Your task to perform on an android device: Open Youtube and go to the subscriptions tab Image 0: 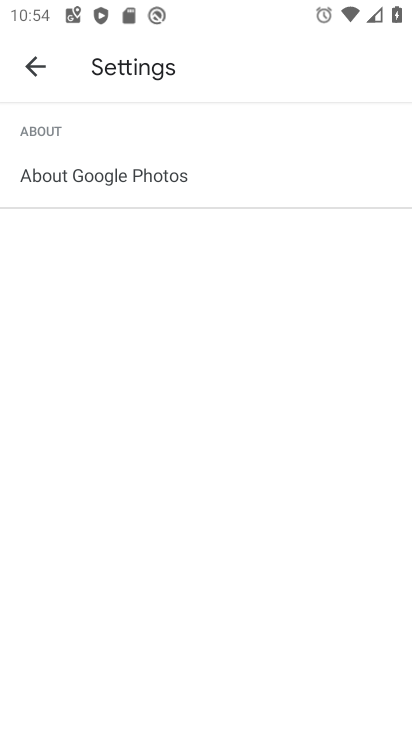
Step 0: press home button
Your task to perform on an android device: Open Youtube and go to the subscriptions tab Image 1: 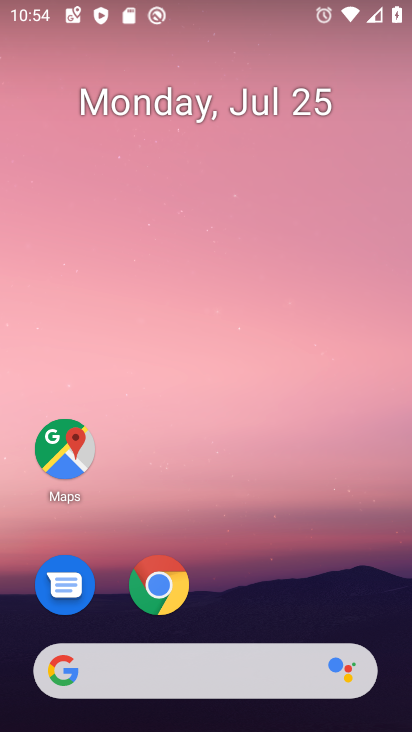
Step 1: drag from (206, 614) to (212, 51)
Your task to perform on an android device: Open Youtube and go to the subscriptions tab Image 2: 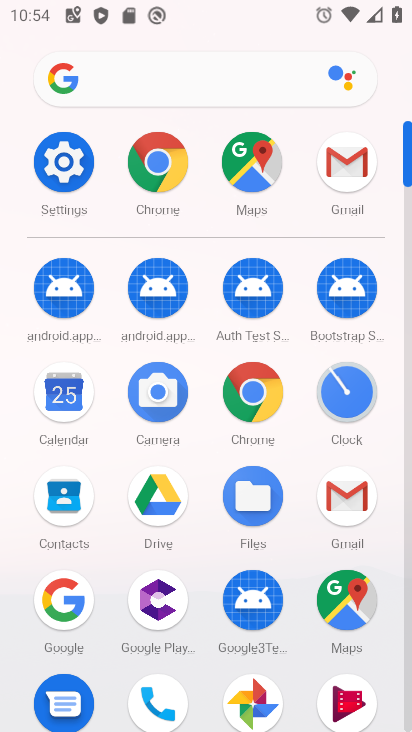
Step 2: drag from (210, 660) to (210, 121)
Your task to perform on an android device: Open Youtube and go to the subscriptions tab Image 3: 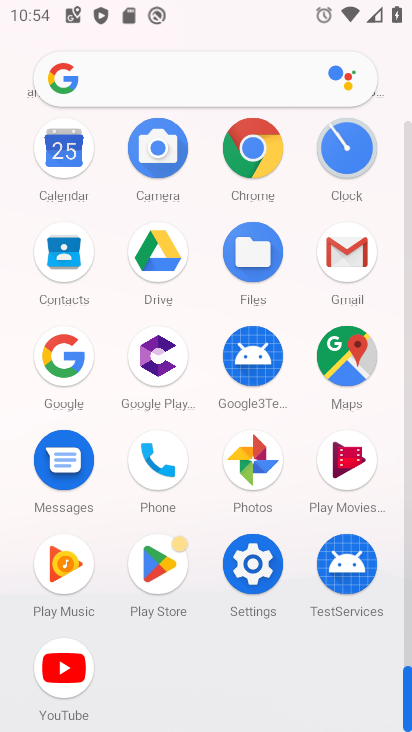
Step 3: click (68, 681)
Your task to perform on an android device: Open Youtube and go to the subscriptions tab Image 4: 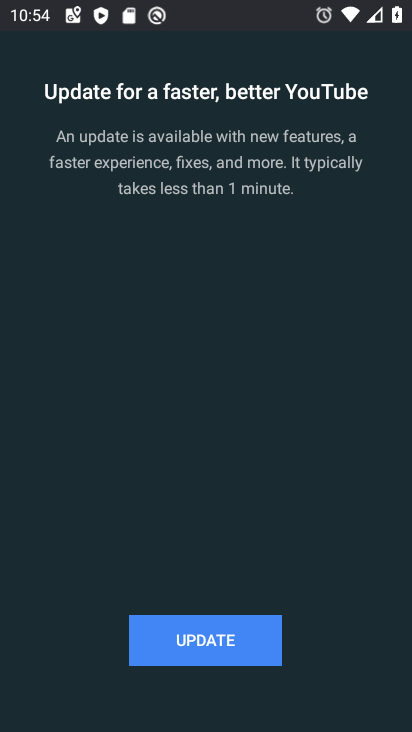
Step 4: click (231, 644)
Your task to perform on an android device: Open Youtube and go to the subscriptions tab Image 5: 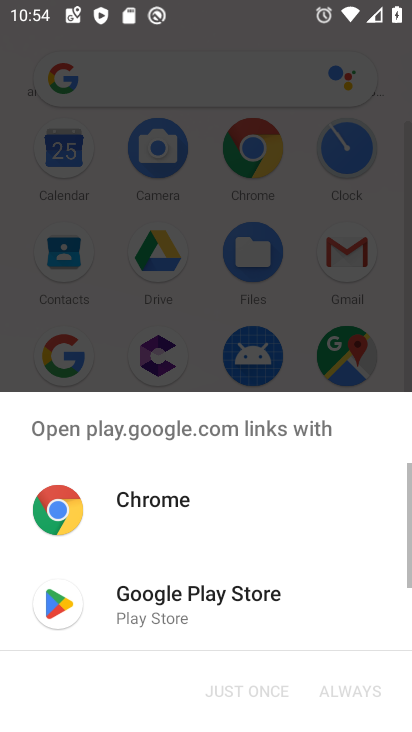
Step 5: click (179, 598)
Your task to perform on an android device: Open Youtube and go to the subscriptions tab Image 6: 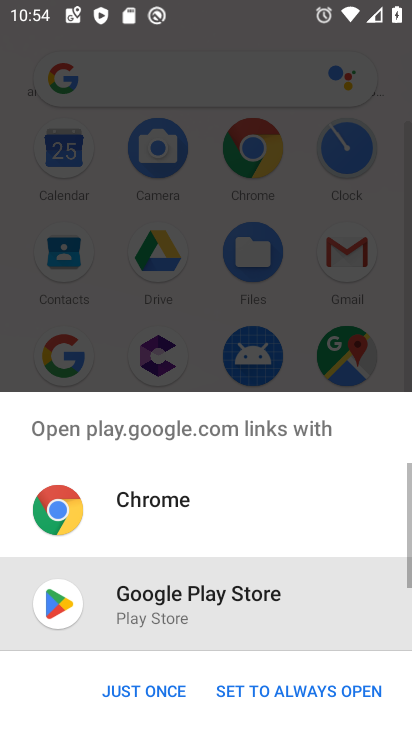
Step 6: click (166, 692)
Your task to perform on an android device: Open Youtube and go to the subscriptions tab Image 7: 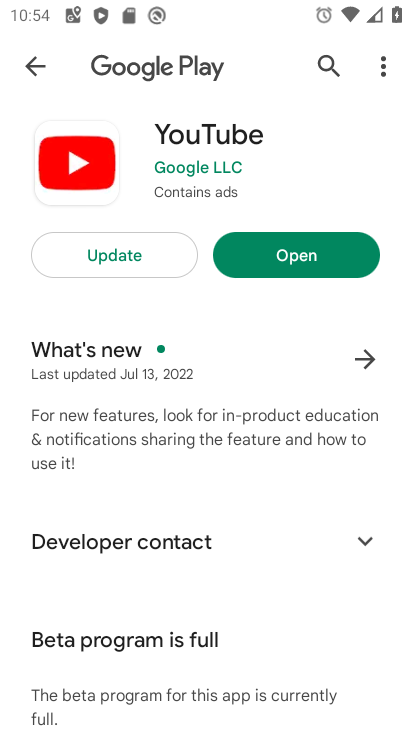
Step 7: click (143, 248)
Your task to perform on an android device: Open Youtube and go to the subscriptions tab Image 8: 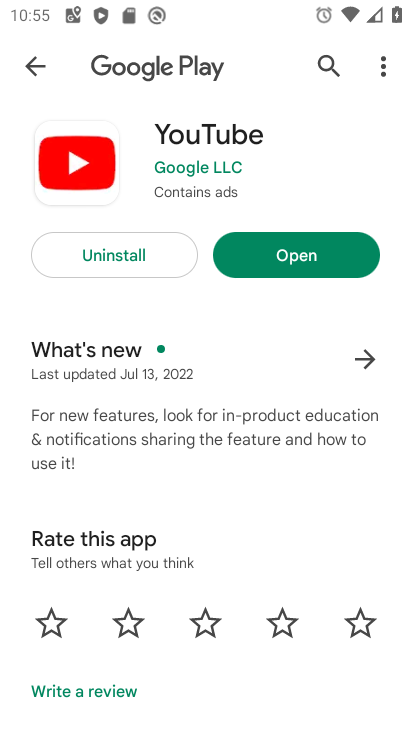
Step 8: click (337, 262)
Your task to perform on an android device: Open Youtube and go to the subscriptions tab Image 9: 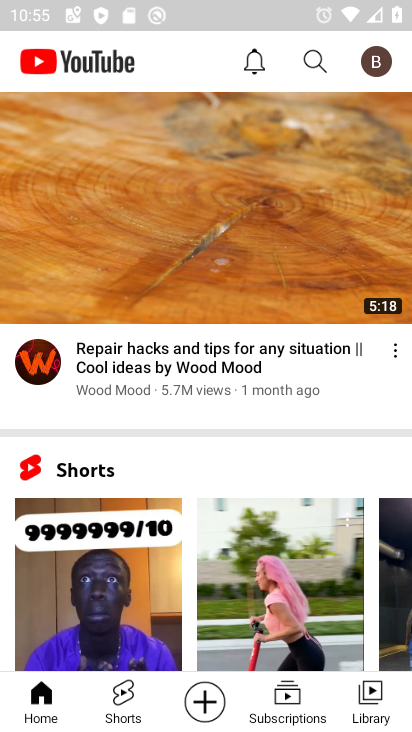
Step 9: click (278, 724)
Your task to perform on an android device: Open Youtube and go to the subscriptions tab Image 10: 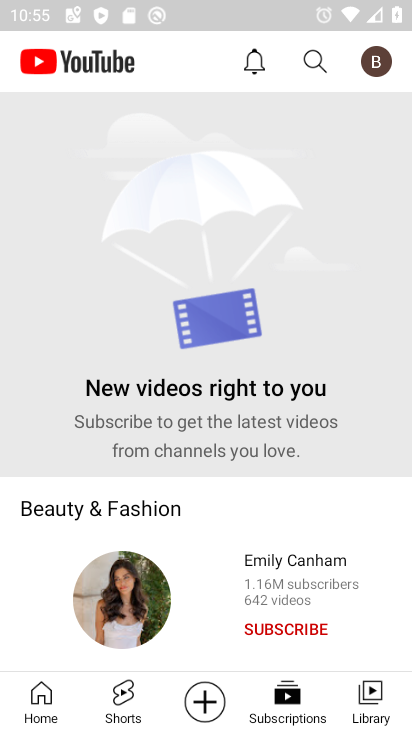
Step 10: task complete